Your task to perform on an android device: Open notification settings Image 0: 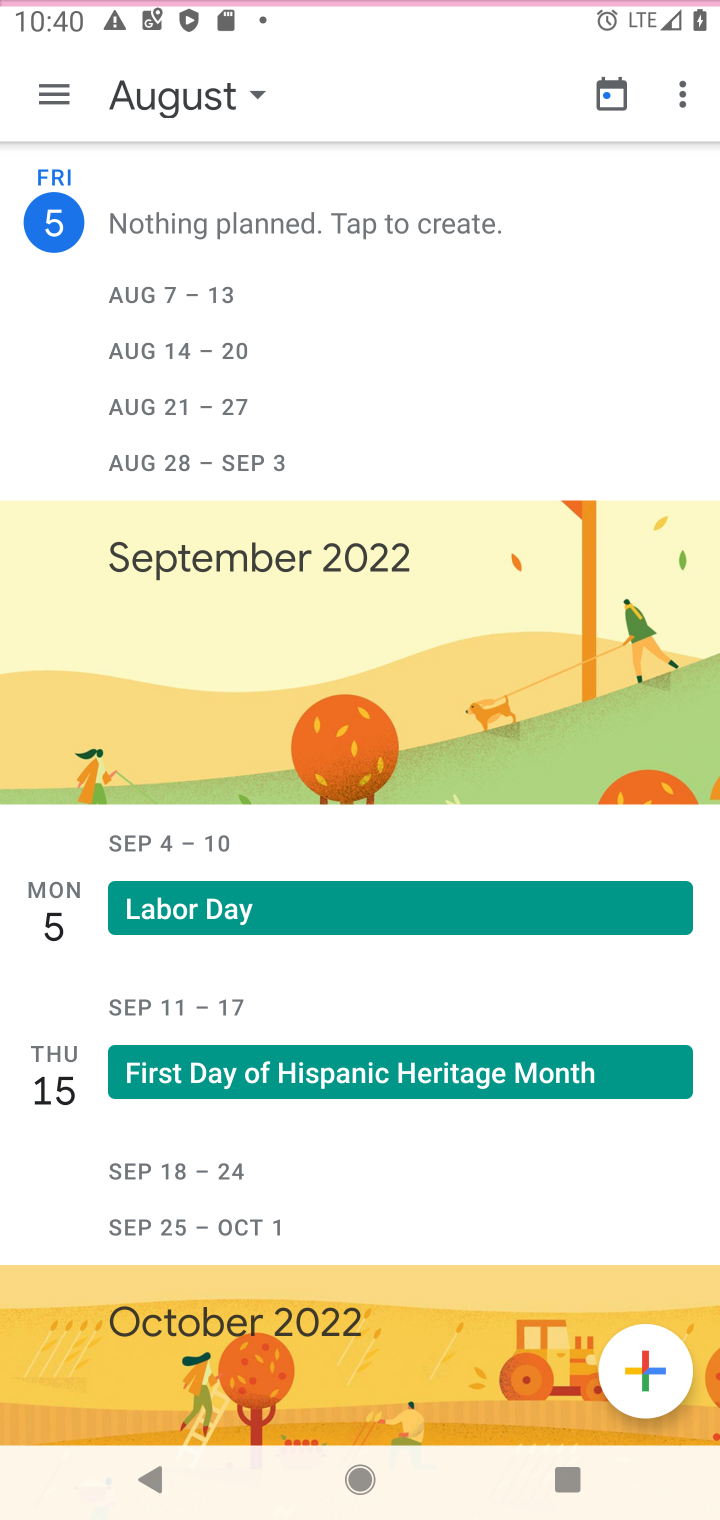
Step 0: press home button
Your task to perform on an android device: Open notification settings Image 1: 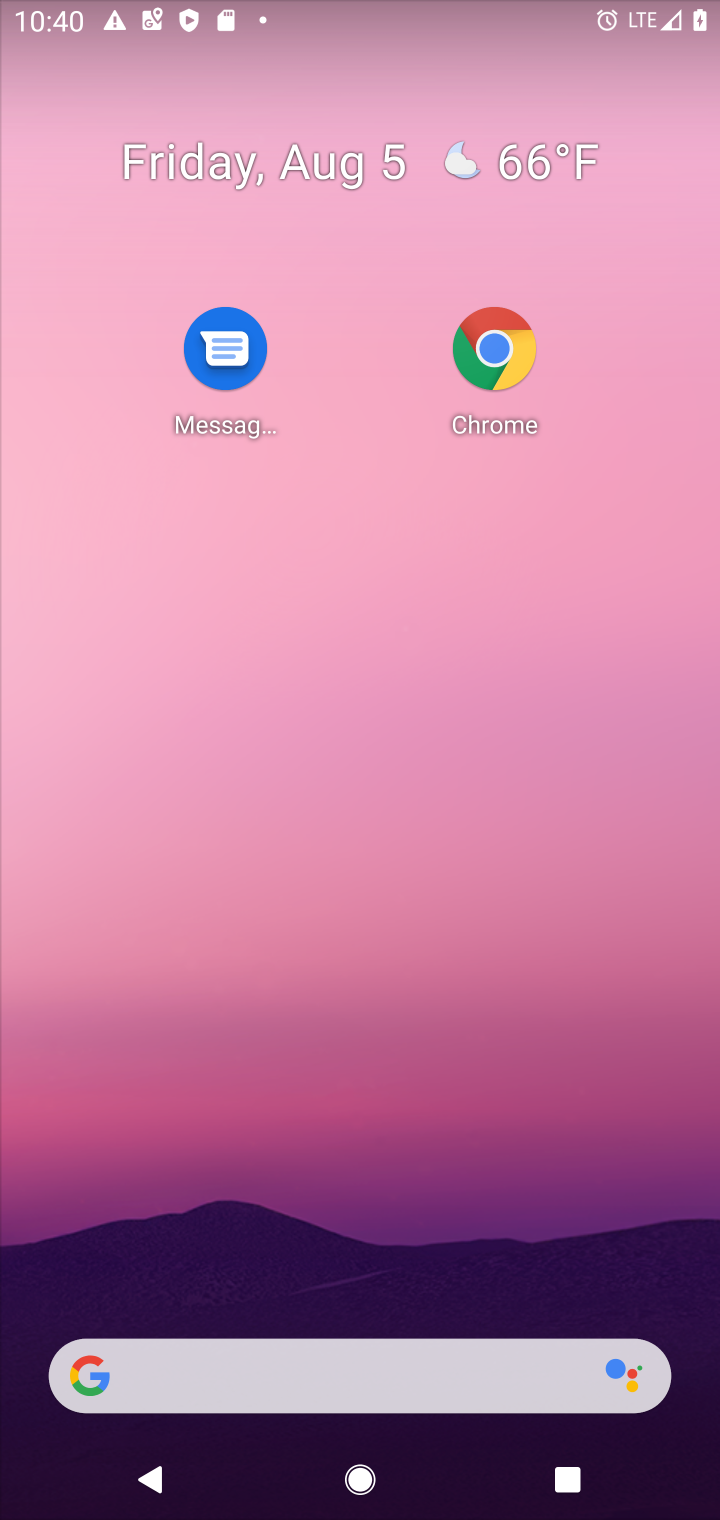
Step 1: drag from (300, 790) to (343, 516)
Your task to perform on an android device: Open notification settings Image 2: 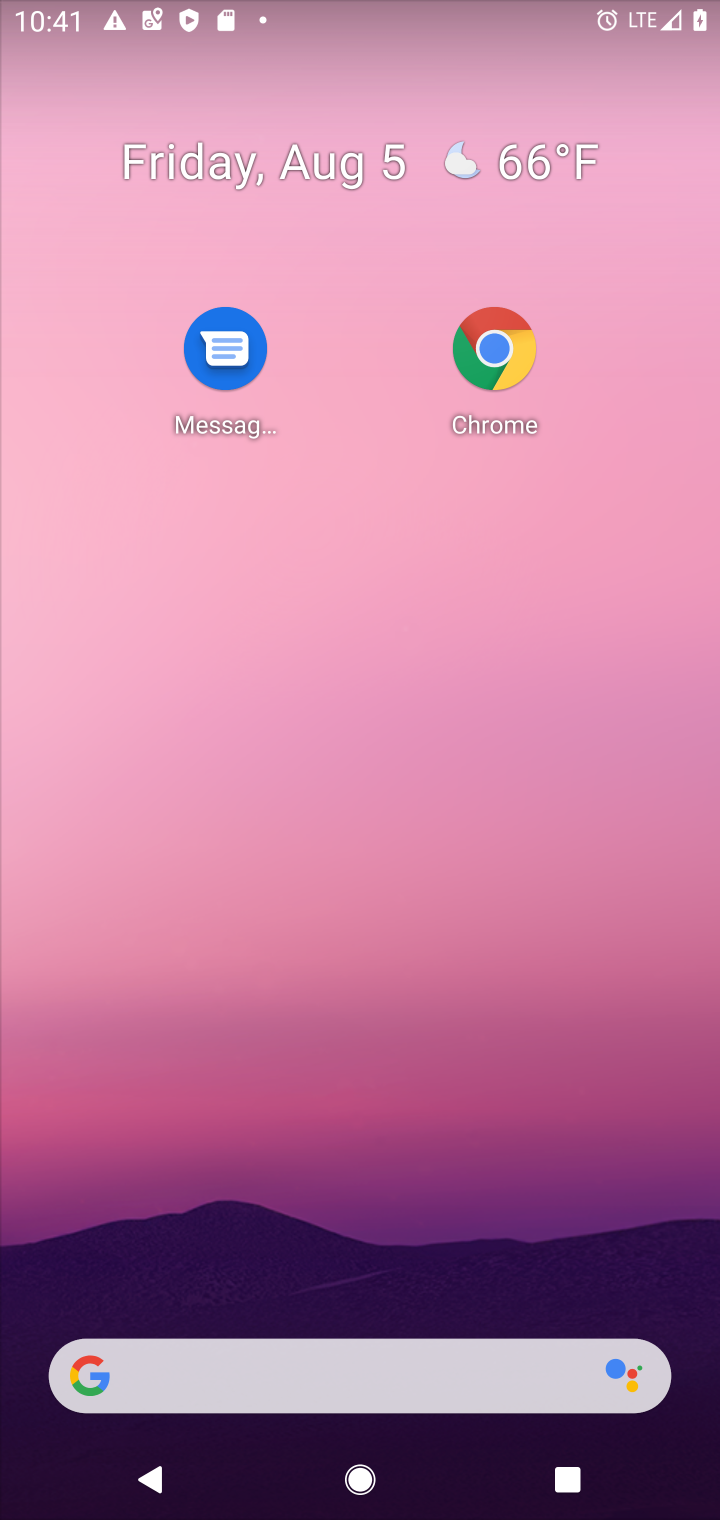
Step 2: drag from (343, 1206) to (423, 551)
Your task to perform on an android device: Open notification settings Image 3: 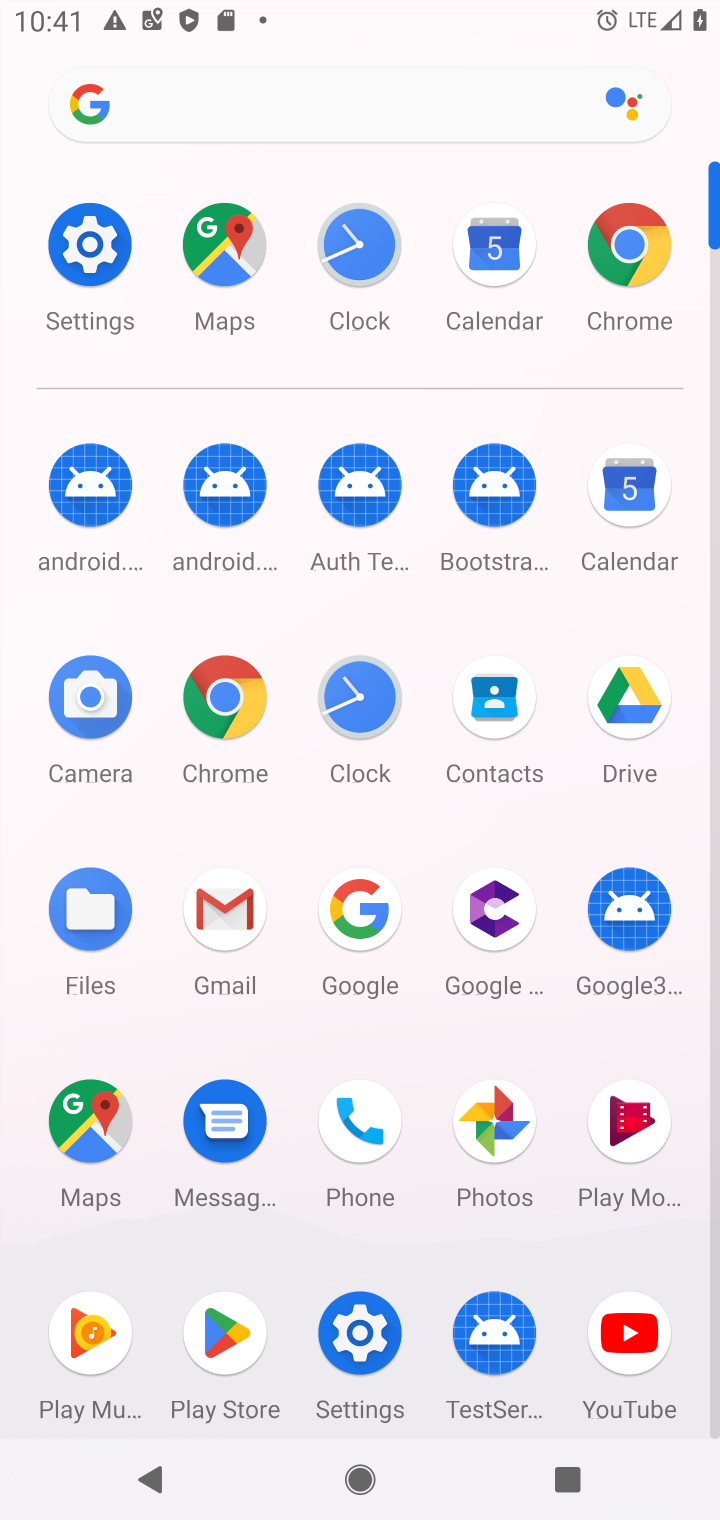
Step 3: click (75, 261)
Your task to perform on an android device: Open notification settings Image 4: 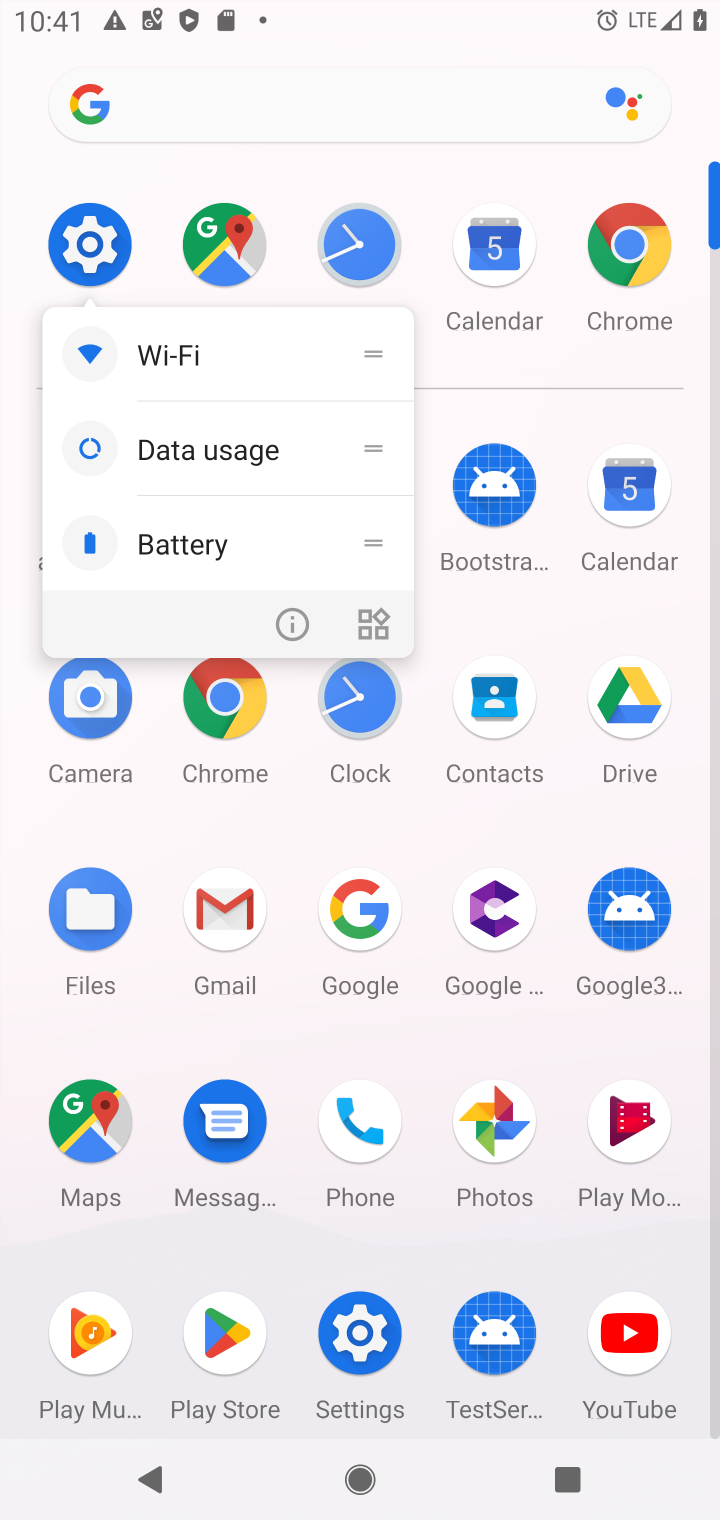
Step 4: click (95, 228)
Your task to perform on an android device: Open notification settings Image 5: 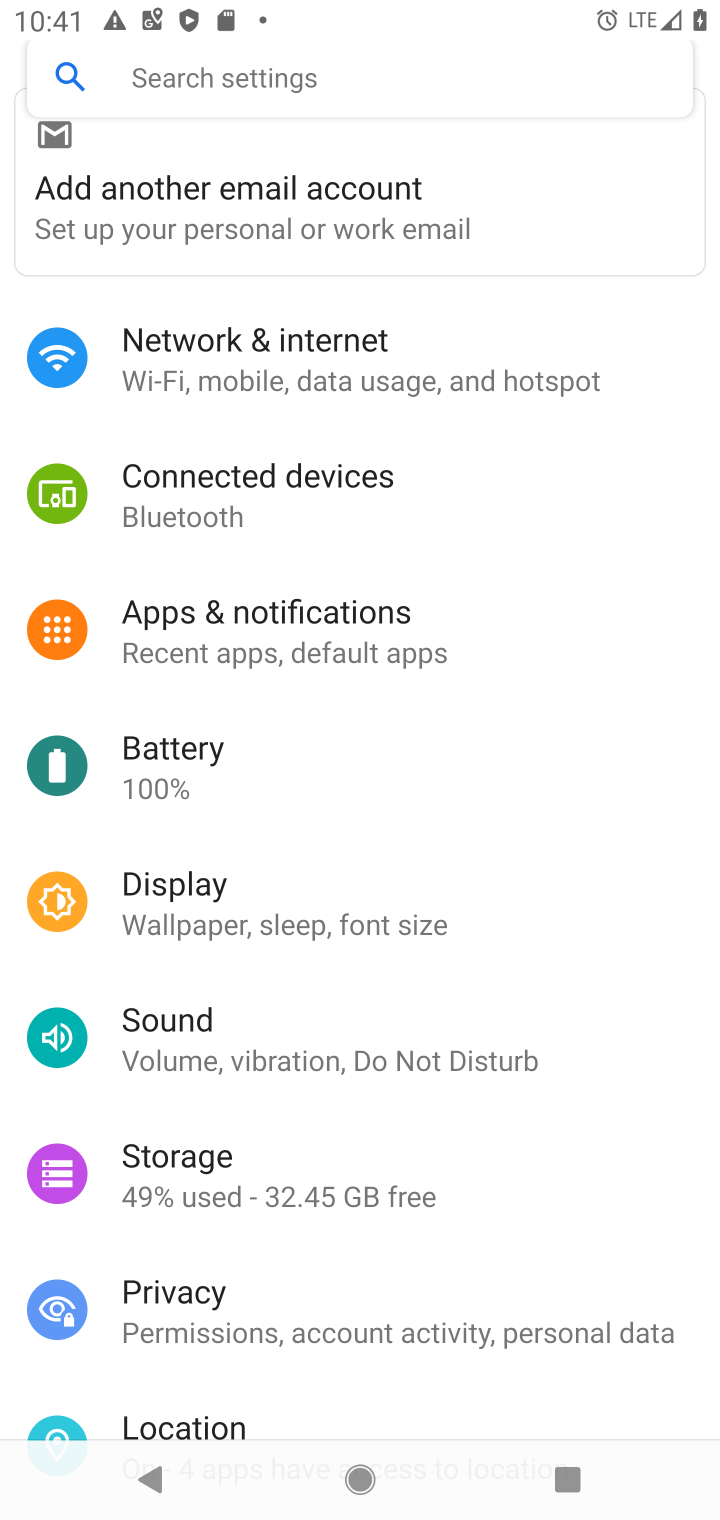
Step 5: click (252, 78)
Your task to perform on an android device: Open notification settings Image 6: 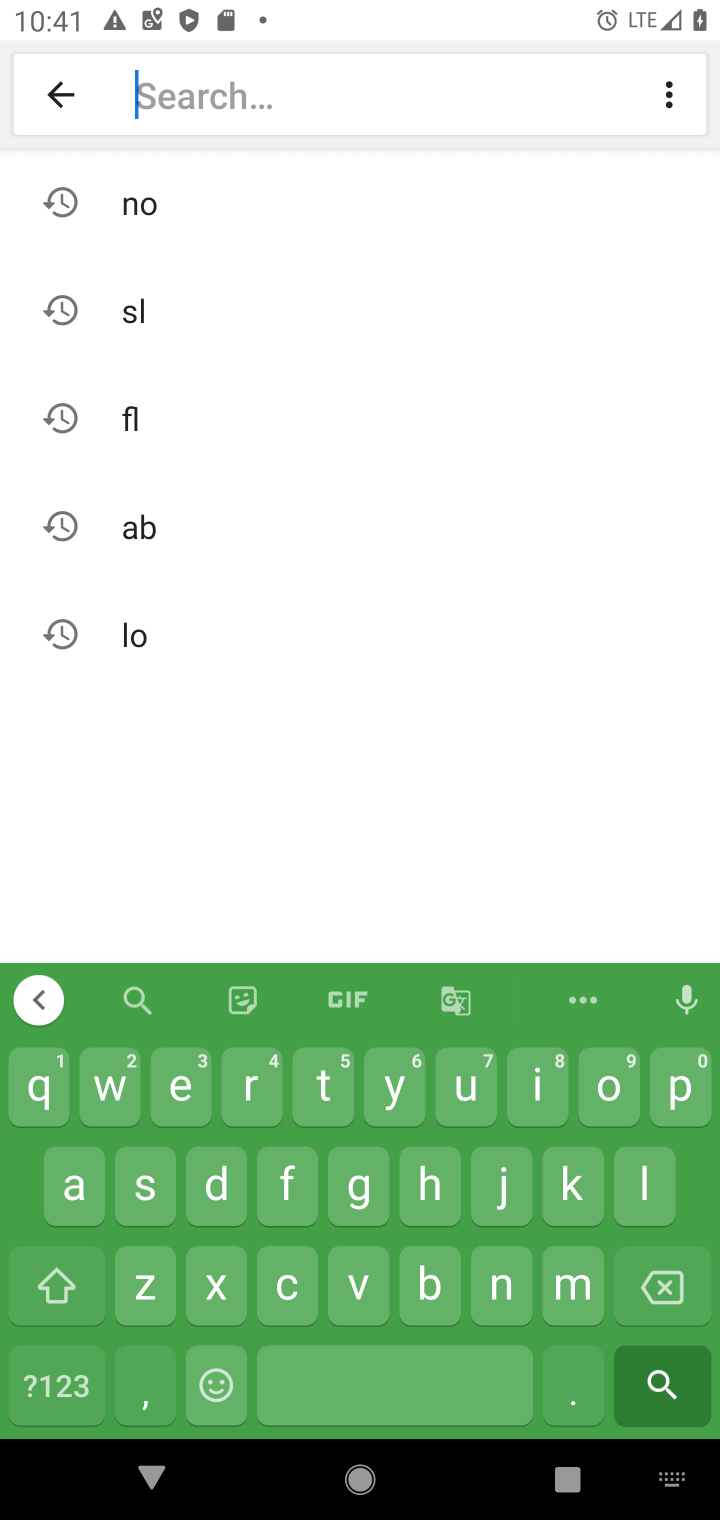
Step 6: click (244, 228)
Your task to perform on an android device: Open notification settings Image 7: 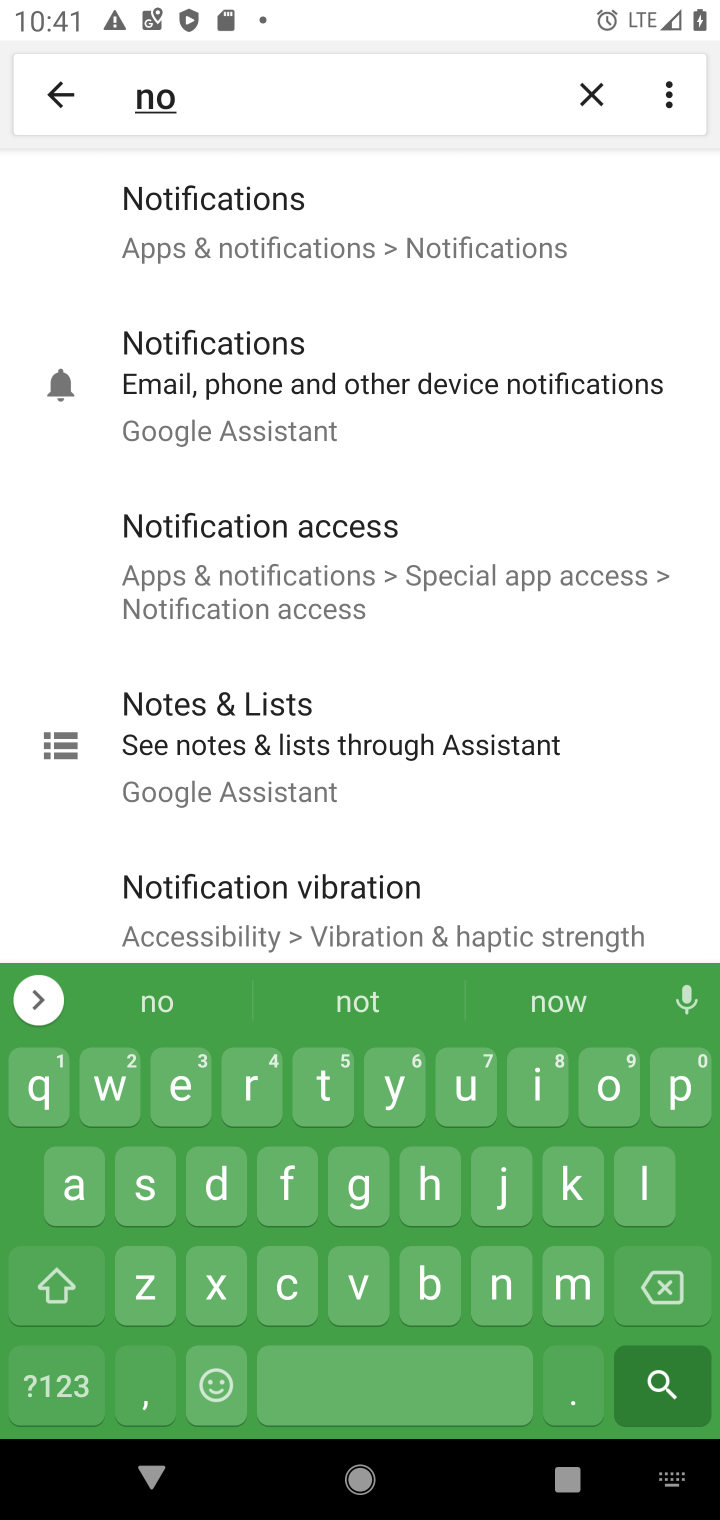
Step 7: click (237, 227)
Your task to perform on an android device: Open notification settings Image 8: 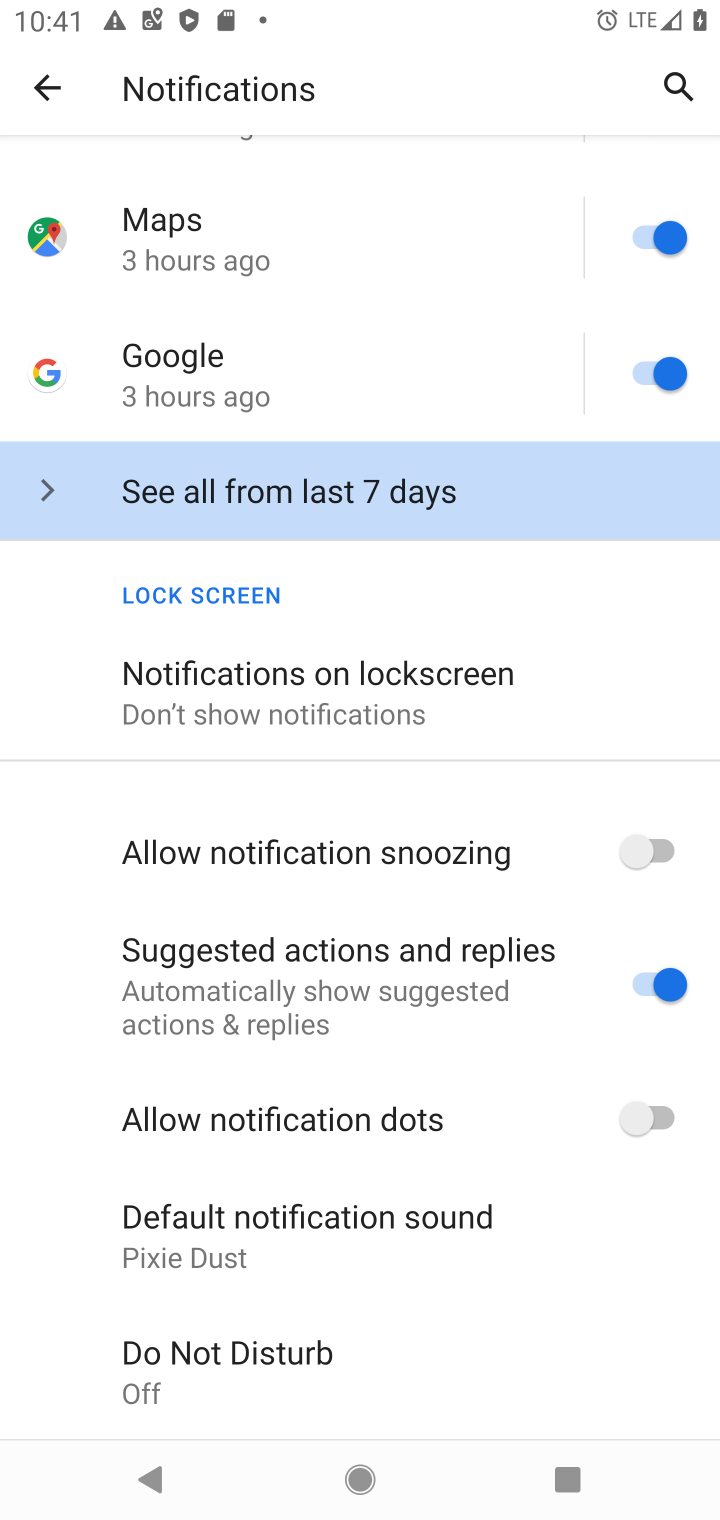
Step 8: click (192, 659)
Your task to perform on an android device: Open notification settings Image 9: 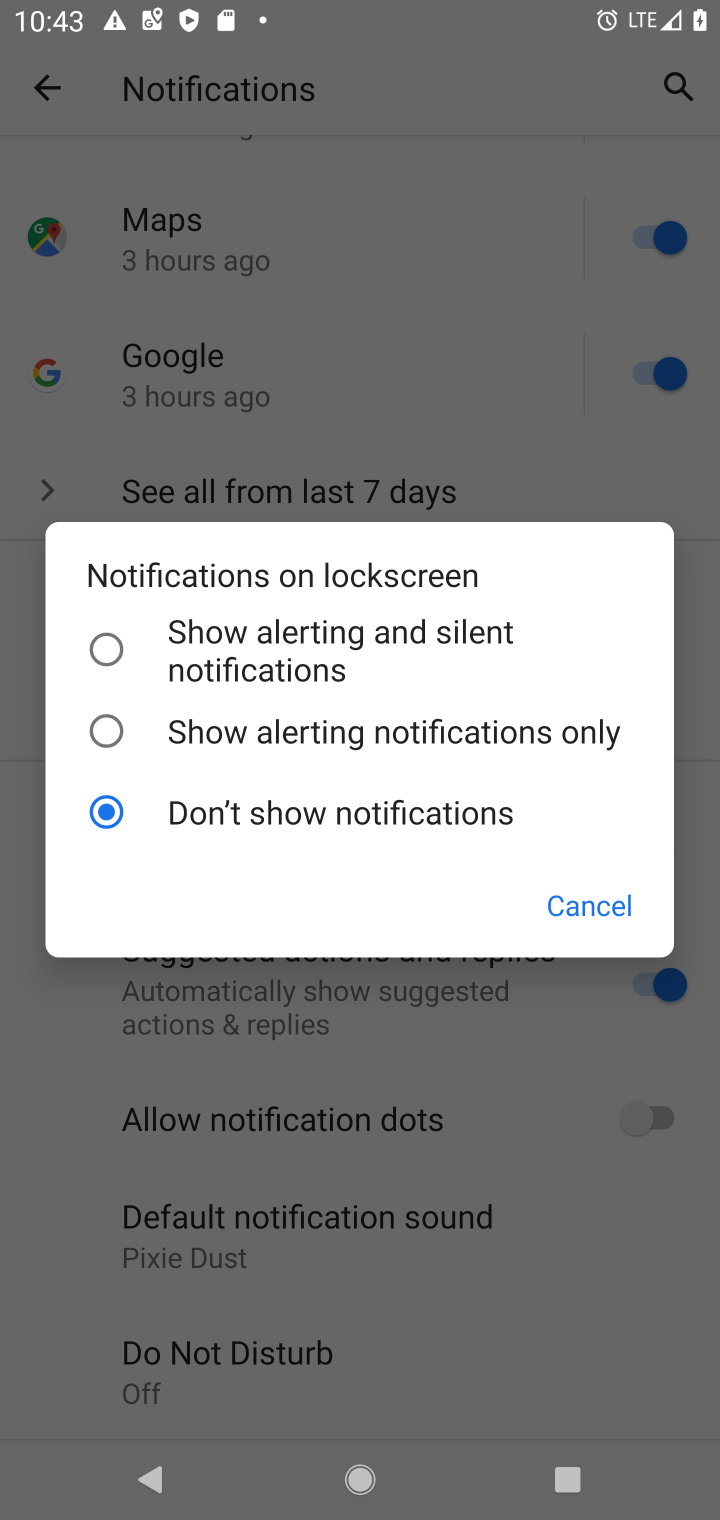
Step 9: task complete